Your task to perform on an android device: create a new album in the google photos Image 0: 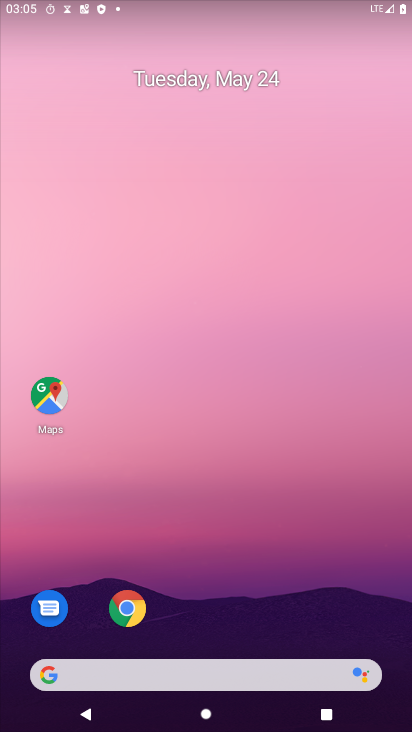
Step 0: drag from (269, 619) to (211, 202)
Your task to perform on an android device: create a new album in the google photos Image 1: 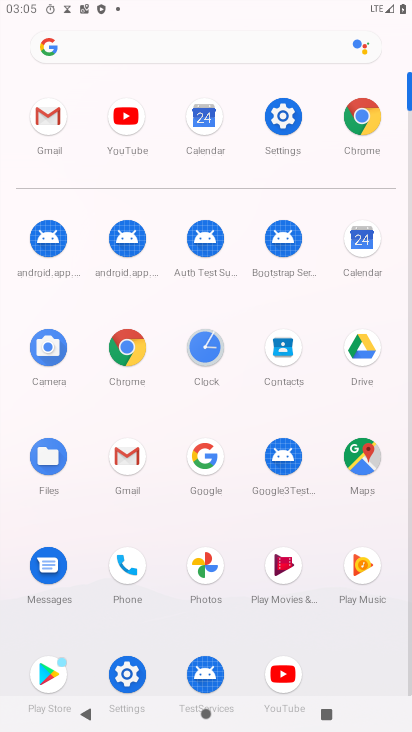
Step 1: click (214, 571)
Your task to perform on an android device: create a new album in the google photos Image 2: 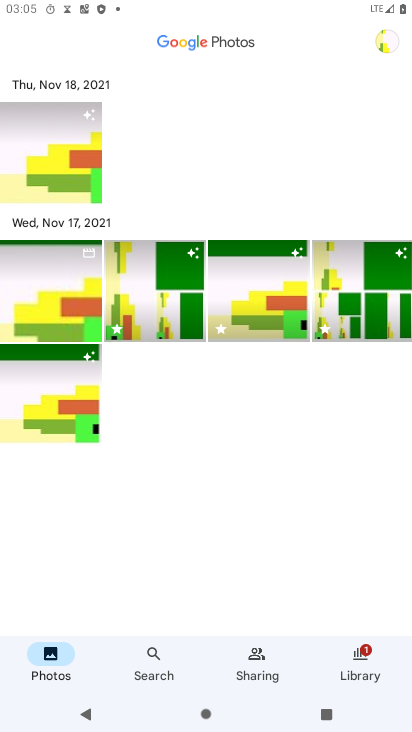
Step 2: click (345, 658)
Your task to perform on an android device: create a new album in the google photos Image 3: 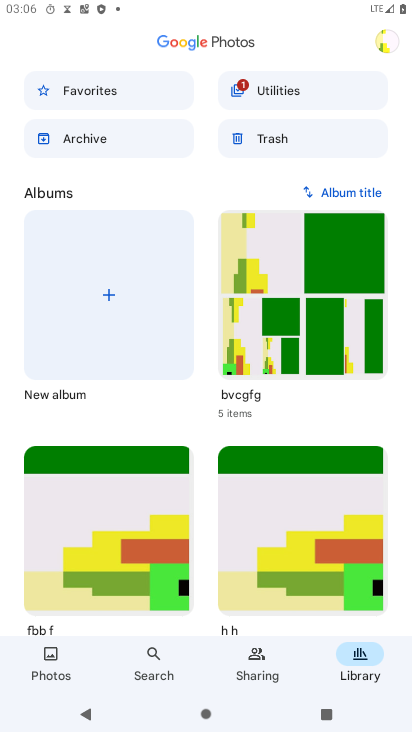
Step 3: click (122, 249)
Your task to perform on an android device: create a new album in the google photos Image 4: 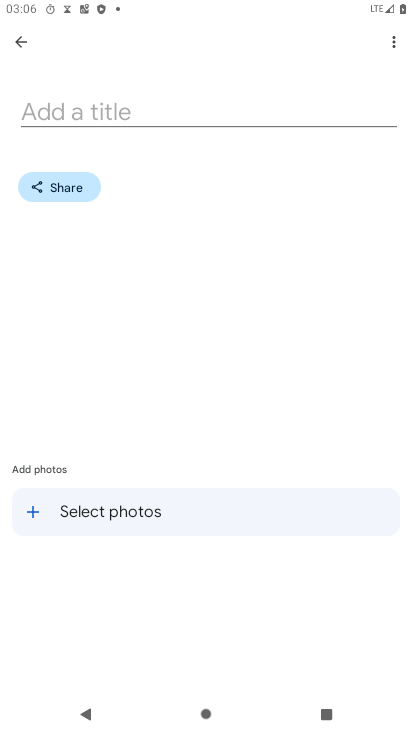
Step 4: click (253, 113)
Your task to perform on an android device: create a new album in the google photos Image 5: 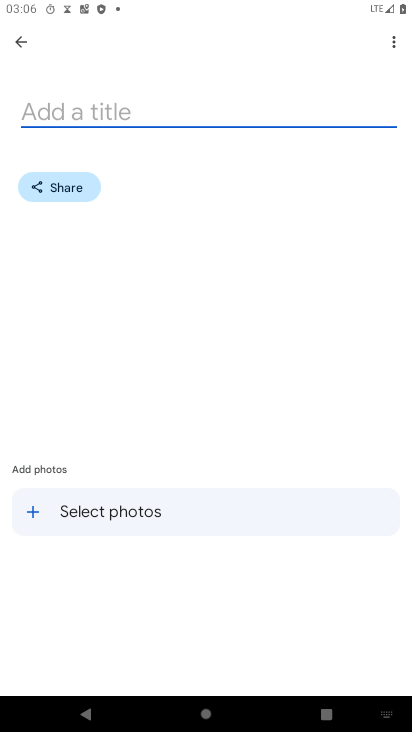
Step 5: type "mxlxls "
Your task to perform on an android device: create a new album in the google photos Image 6: 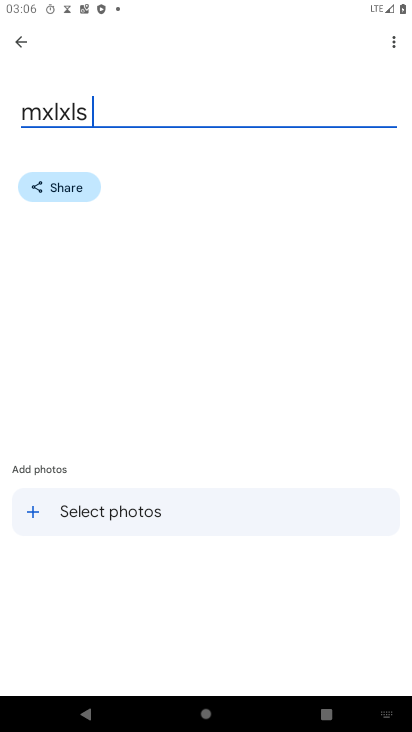
Step 6: click (74, 500)
Your task to perform on an android device: create a new album in the google photos Image 7: 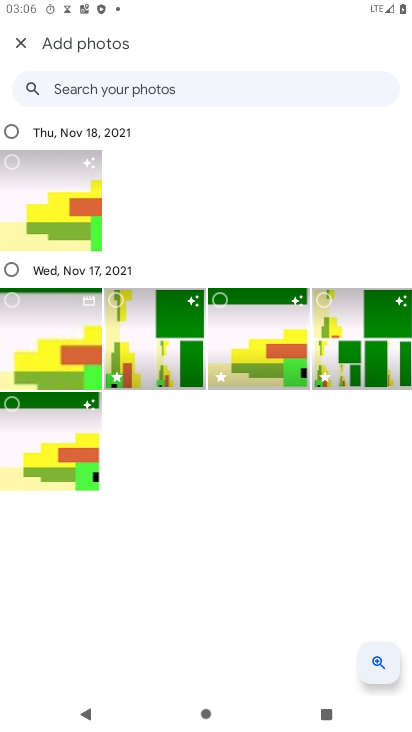
Step 7: click (166, 346)
Your task to perform on an android device: create a new album in the google photos Image 8: 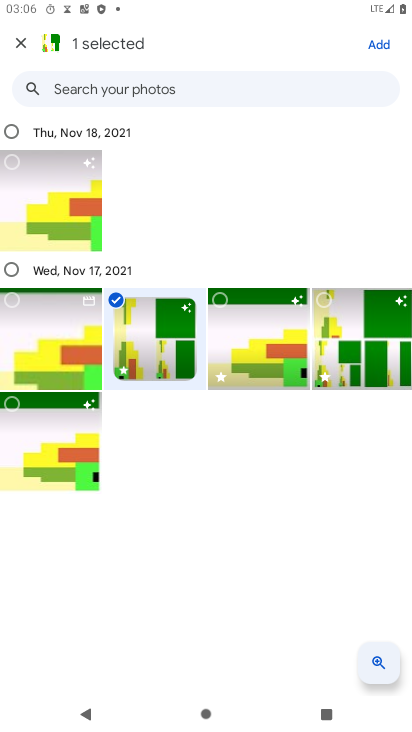
Step 8: click (267, 330)
Your task to perform on an android device: create a new album in the google photos Image 9: 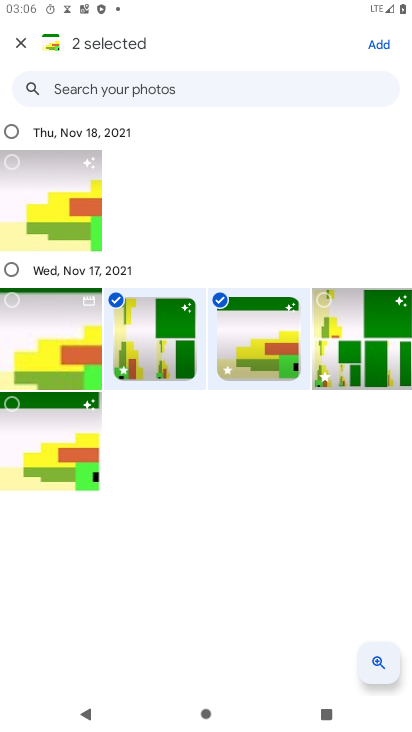
Step 9: click (376, 54)
Your task to perform on an android device: create a new album in the google photos Image 10: 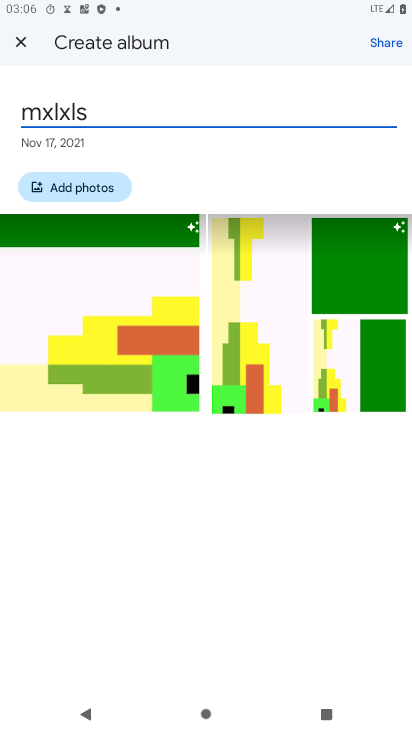
Step 10: task complete